Your task to perform on an android device: Open Maps and search for coffee Image 0: 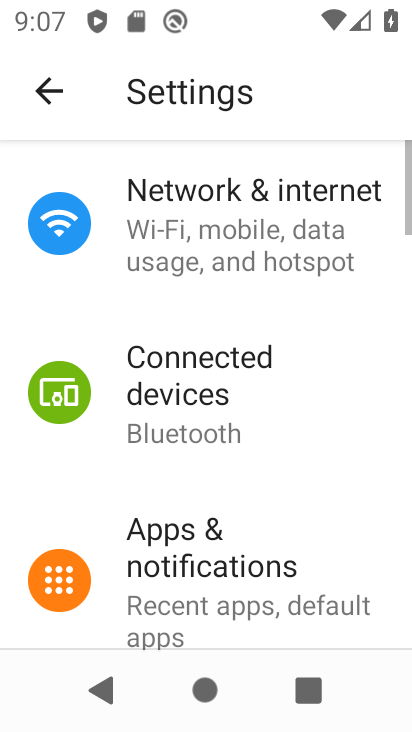
Step 0: drag from (185, 524) to (284, 31)
Your task to perform on an android device: Open Maps and search for coffee Image 1: 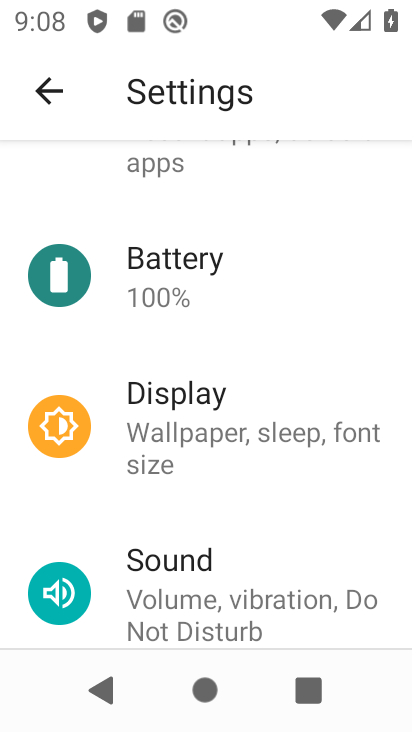
Step 1: press enter
Your task to perform on an android device: Open Maps and search for coffee Image 2: 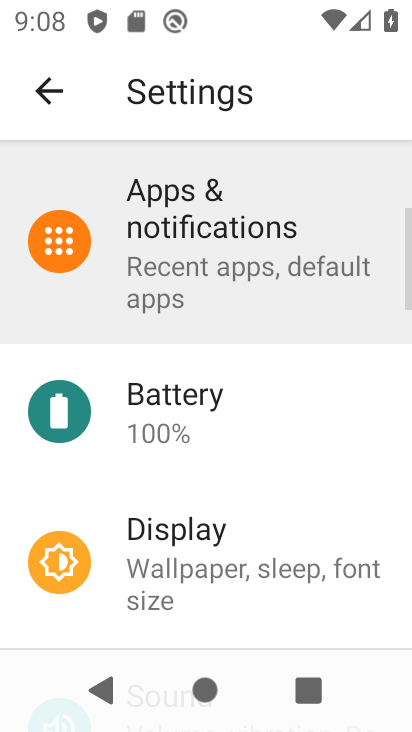
Step 2: drag from (276, 583) to (369, 48)
Your task to perform on an android device: Open Maps and search for coffee Image 3: 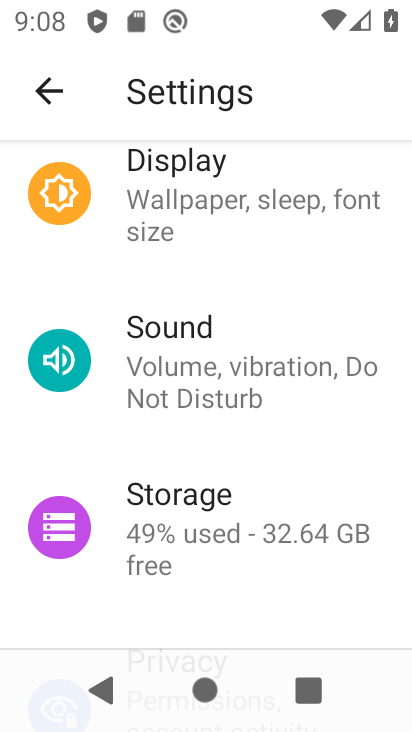
Step 3: drag from (183, 571) to (348, 190)
Your task to perform on an android device: Open Maps and search for coffee Image 4: 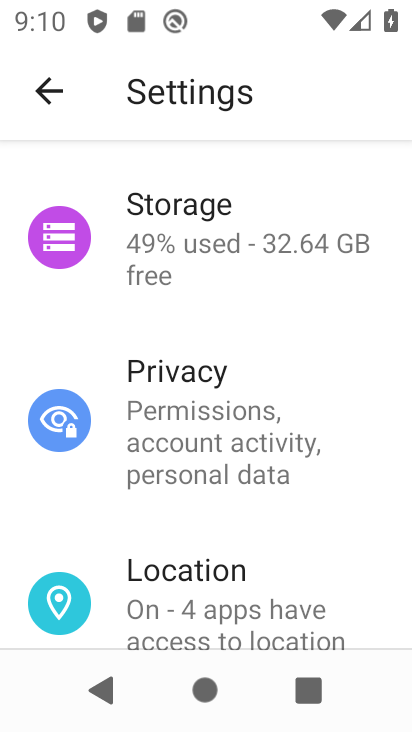
Step 4: drag from (244, 596) to (322, 228)
Your task to perform on an android device: Open Maps and search for coffee Image 5: 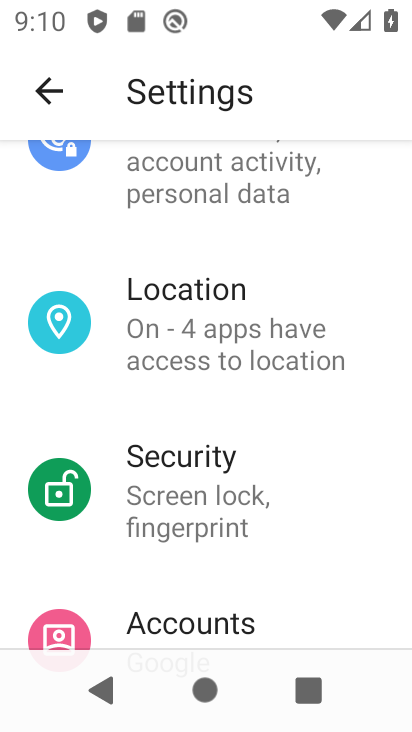
Step 5: press enter
Your task to perform on an android device: Open Maps and search for coffee Image 6: 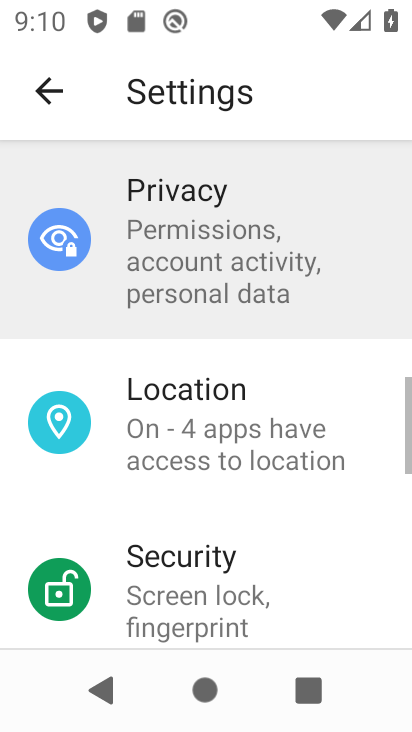
Step 6: drag from (273, 591) to (305, 186)
Your task to perform on an android device: Open Maps and search for coffee Image 7: 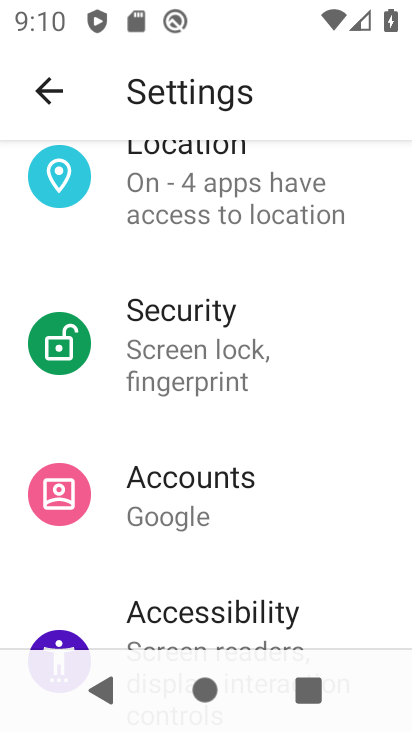
Step 7: press enter
Your task to perform on an android device: Open Maps and search for coffee Image 8: 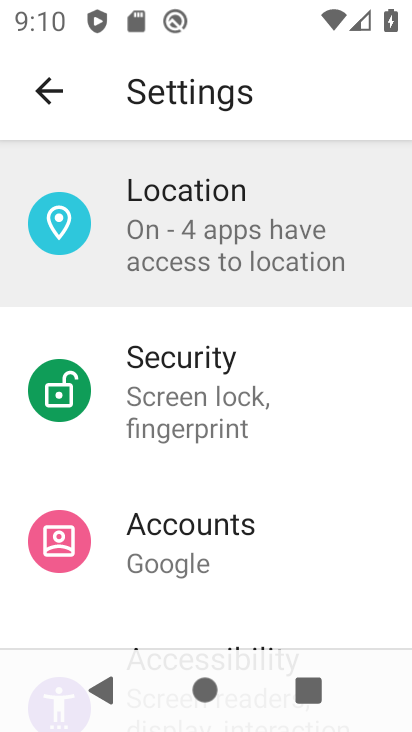
Step 8: press home button
Your task to perform on an android device: Open Maps and search for coffee Image 9: 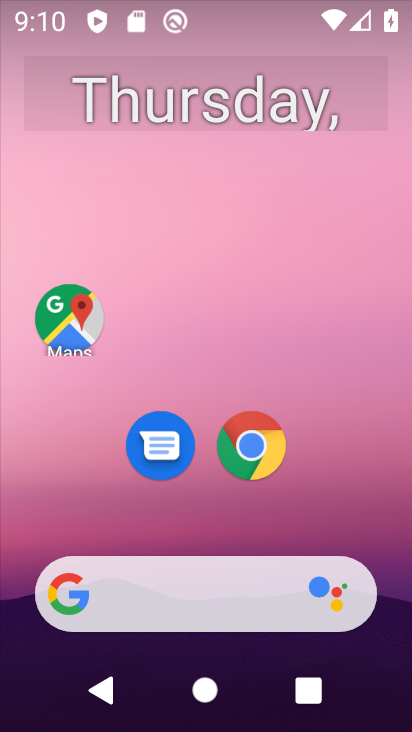
Step 9: click (57, 323)
Your task to perform on an android device: Open Maps and search for coffee Image 10: 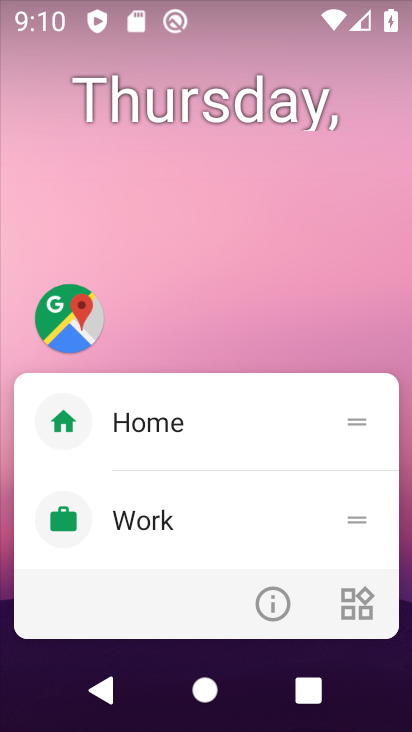
Step 10: click (269, 589)
Your task to perform on an android device: Open Maps and search for coffee Image 11: 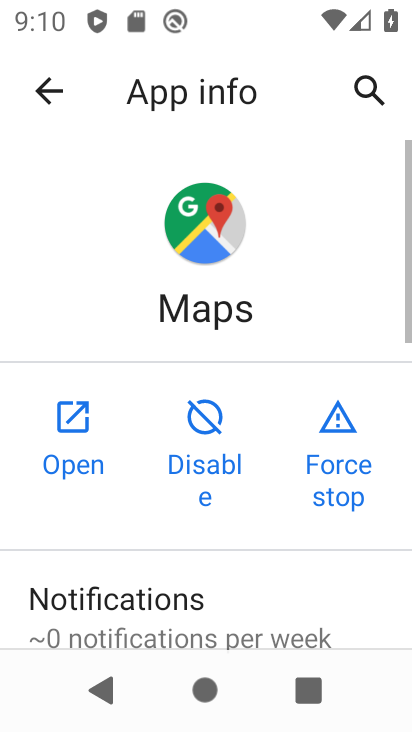
Step 11: click (84, 424)
Your task to perform on an android device: Open Maps and search for coffee Image 12: 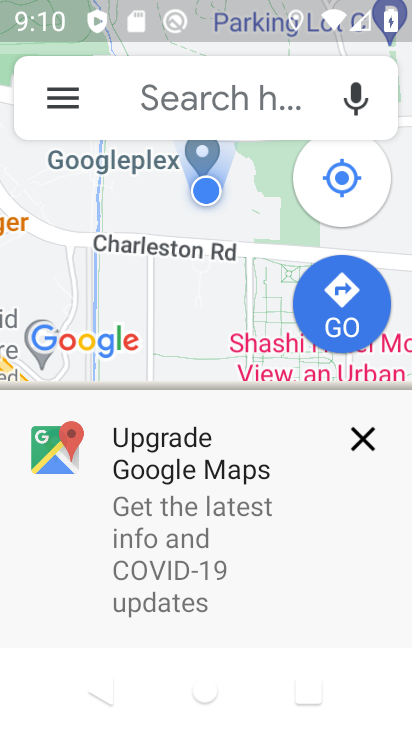
Step 12: click (175, 90)
Your task to perform on an android device: Open Maps and search for coffee Image 13: 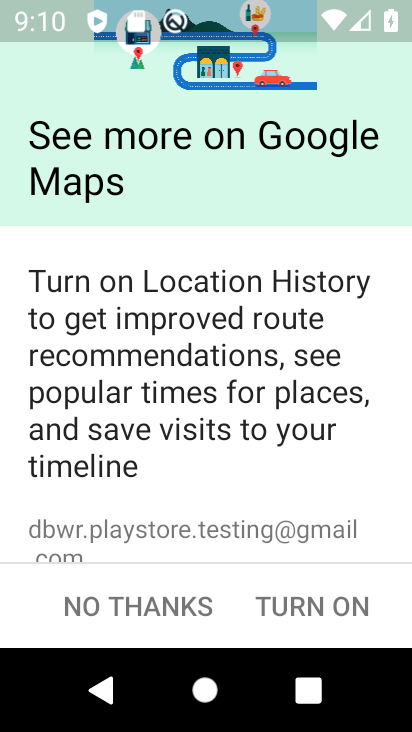
Step 13: click (178, 626)
Your task to perform on an android device: Open Maps and search for coffee Image 14: 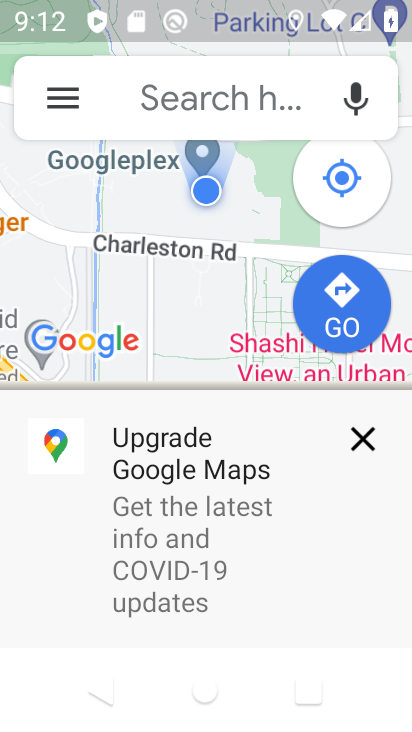
Step 14: click (228, 103)
Your task to perform on an android device: Open Maps and search for coffee Image 15: 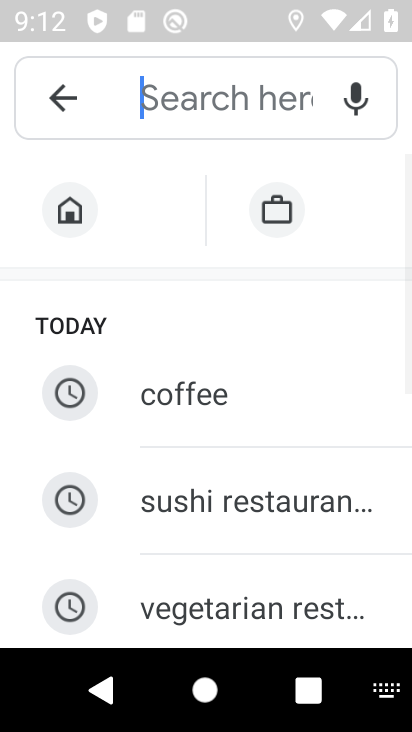
Step 15: click (190, 391)
Your task to perform on an android device: Open Maps and search for coffee Image 16: 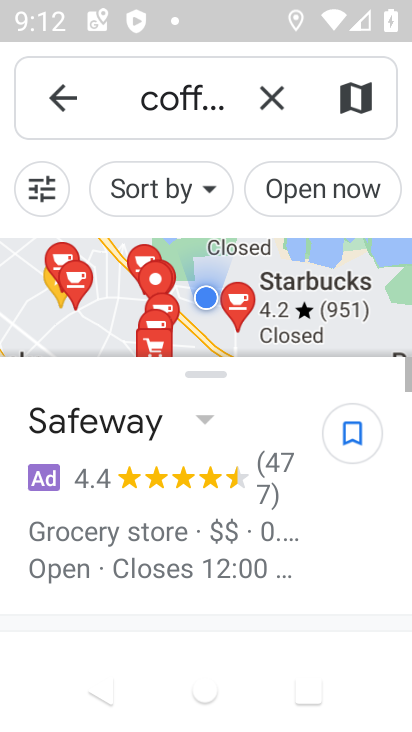
Step 16: task complete